Your task to perform on an android device: open app "Move to iOS" (install if not already installed) Image 0: 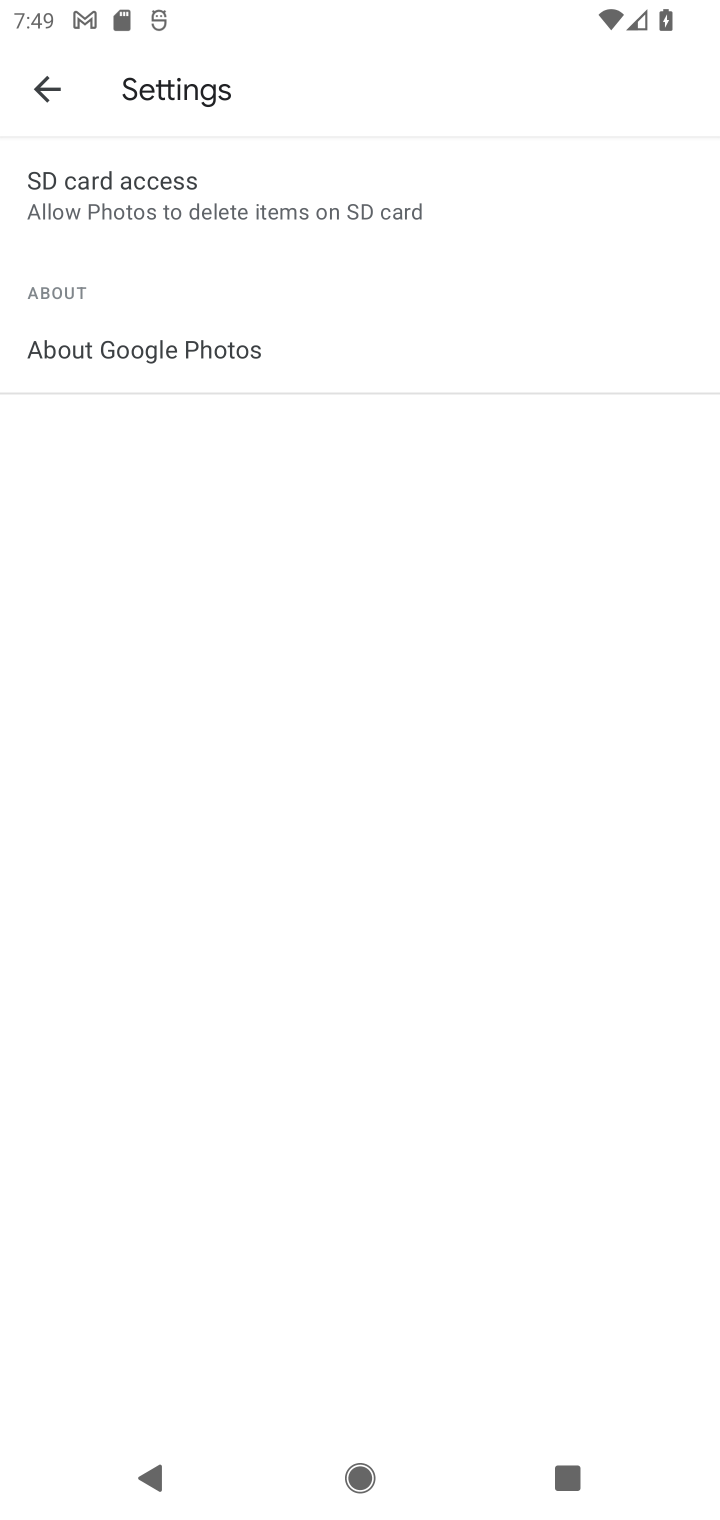
Step 0: press home button
Your task to perform on an android device: open app "Move to iOS" (install if not already installed) Image 1: 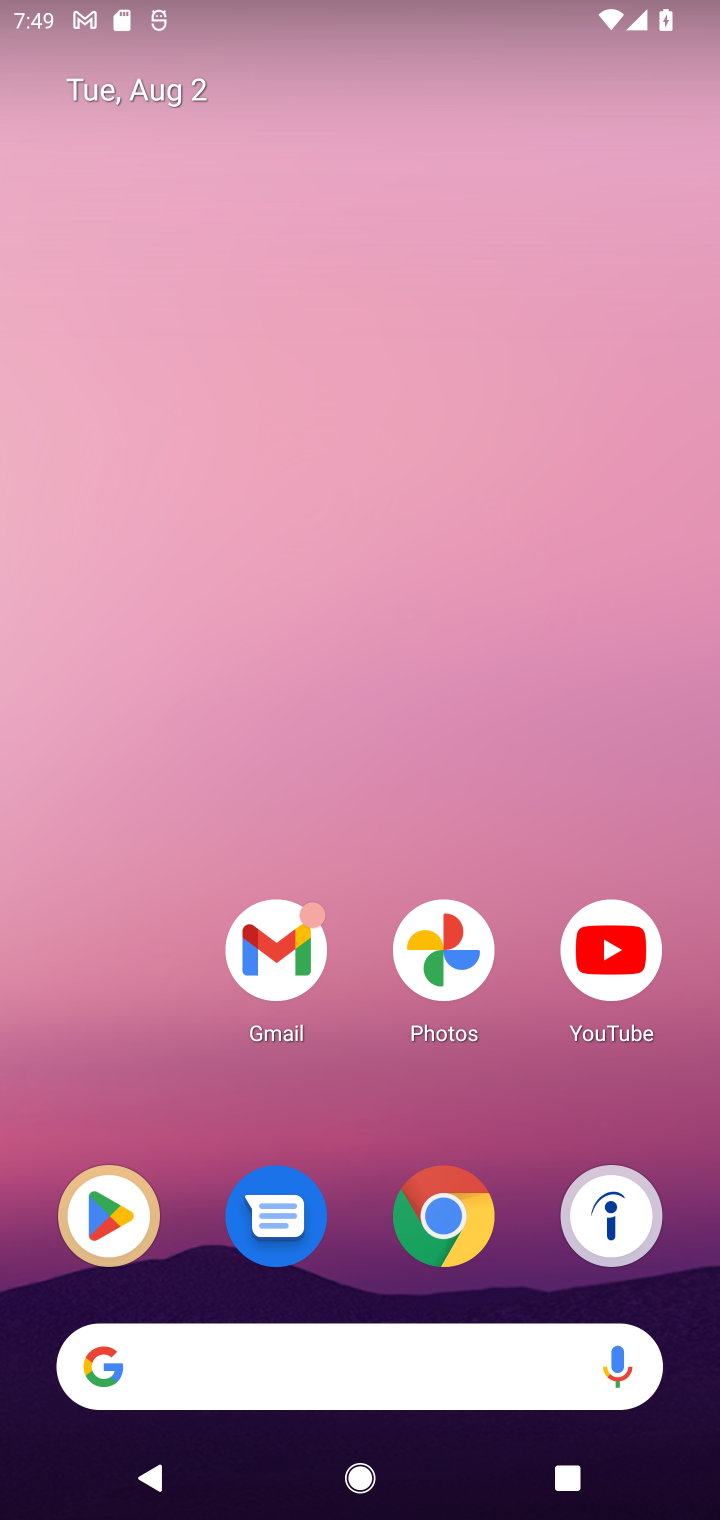
Step 1: click (117, 1205)
Your task to perform on an android device: open app "Move to iOS" (install if not already installed) Image 2: 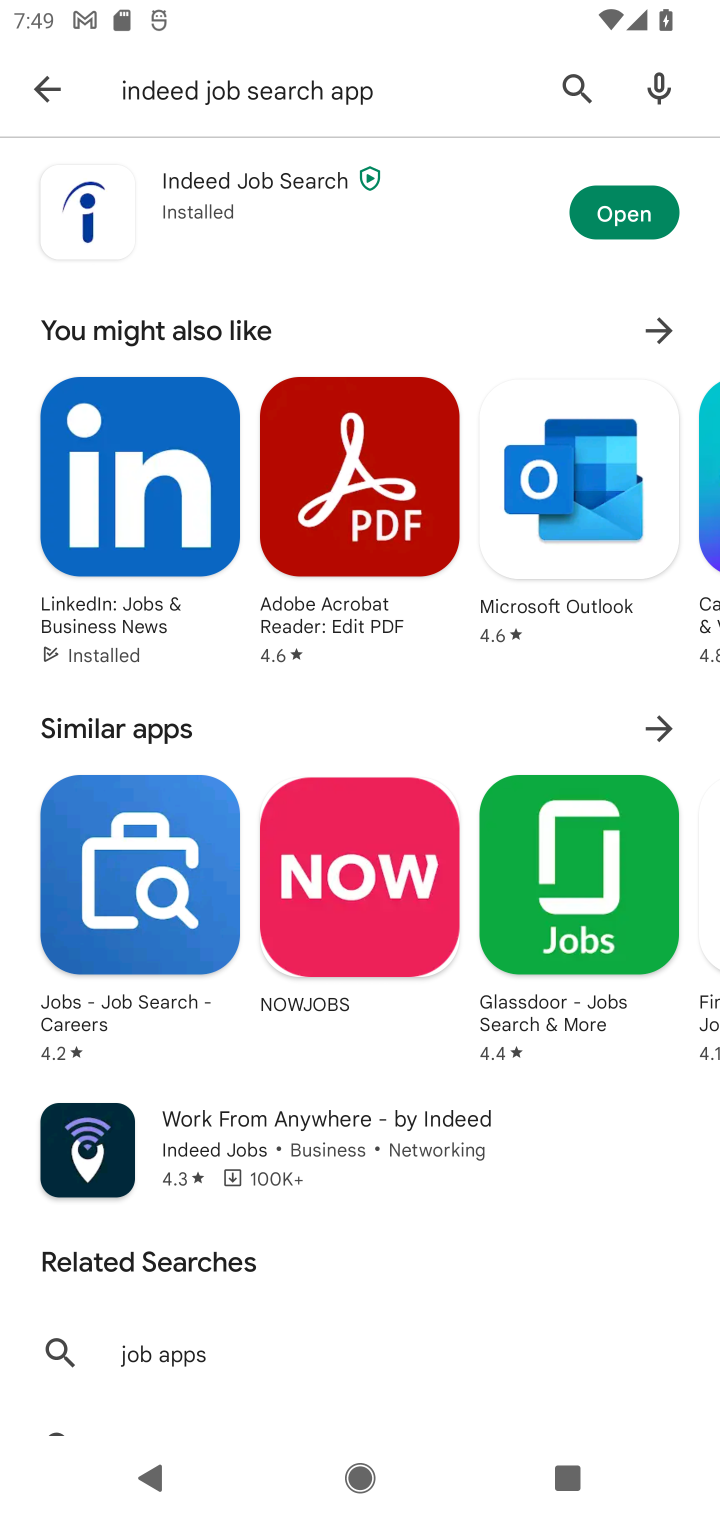
Step 2: click (566, 87)
Your task to perform on an android device: open app "Move to iOS" (install if not already installed) Image 3: 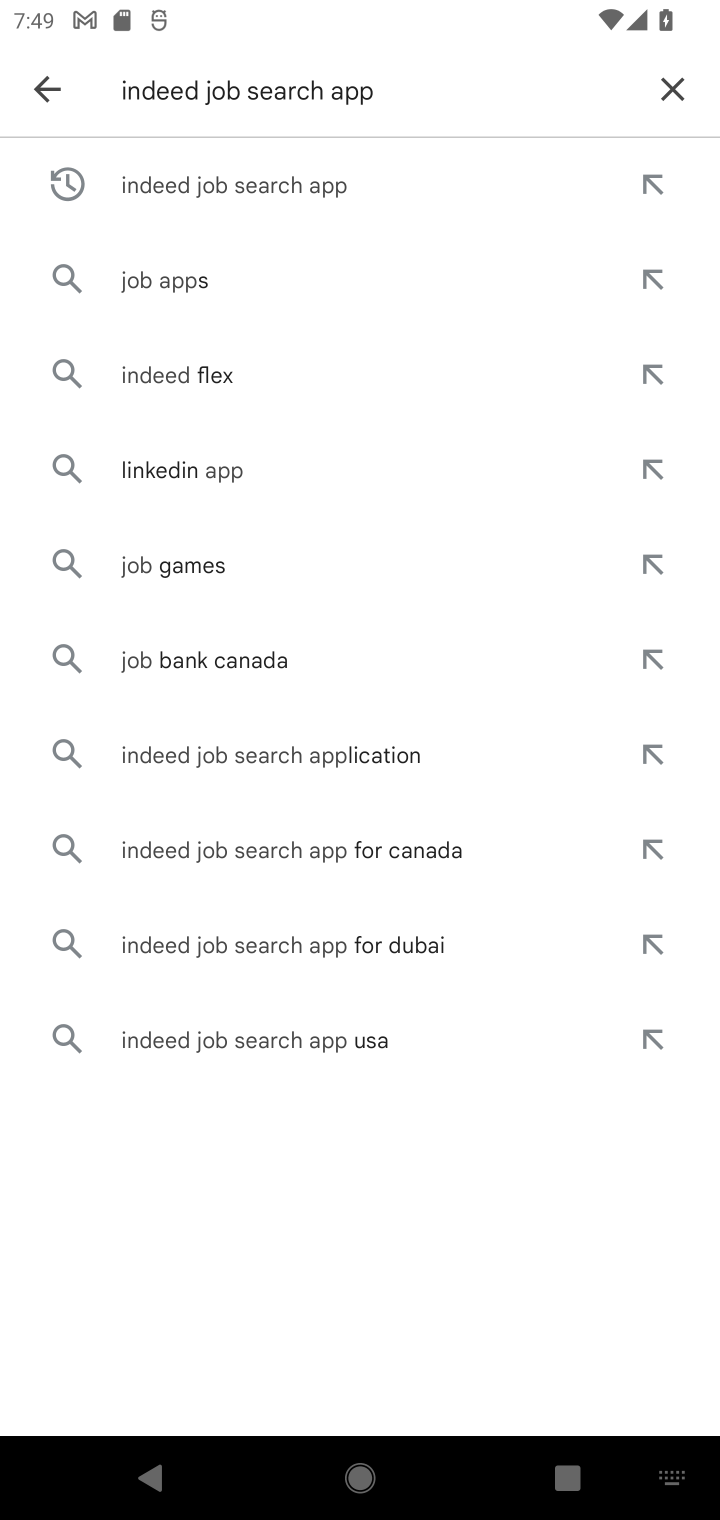
Step 3: click (656, 88)
Your task to perform on an android device: open app "Move to iOS" (install if not already installed) Image 4: 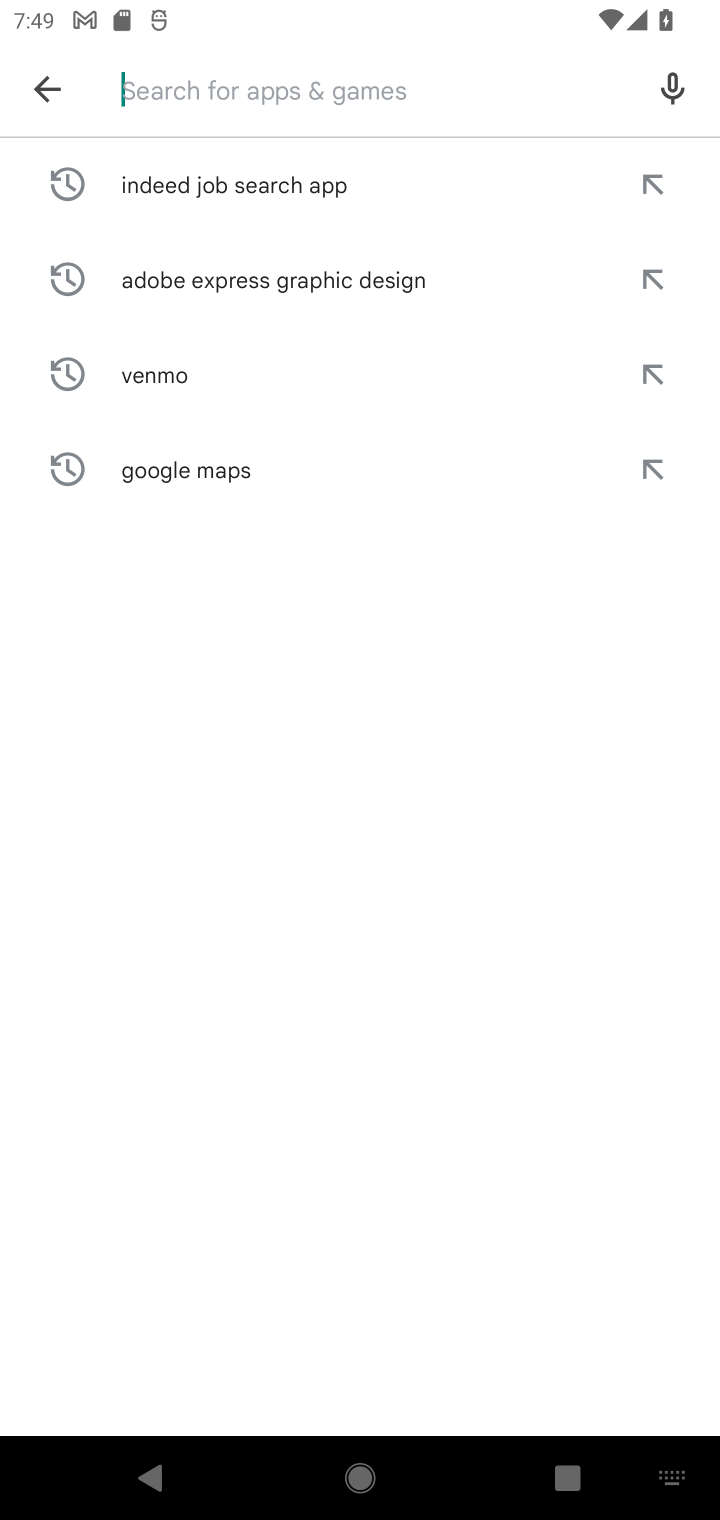
Step 4: type "Move to iOS"
Your task to perform on an android device: open app "Move to iOS" (install if not already installed) Image 5: 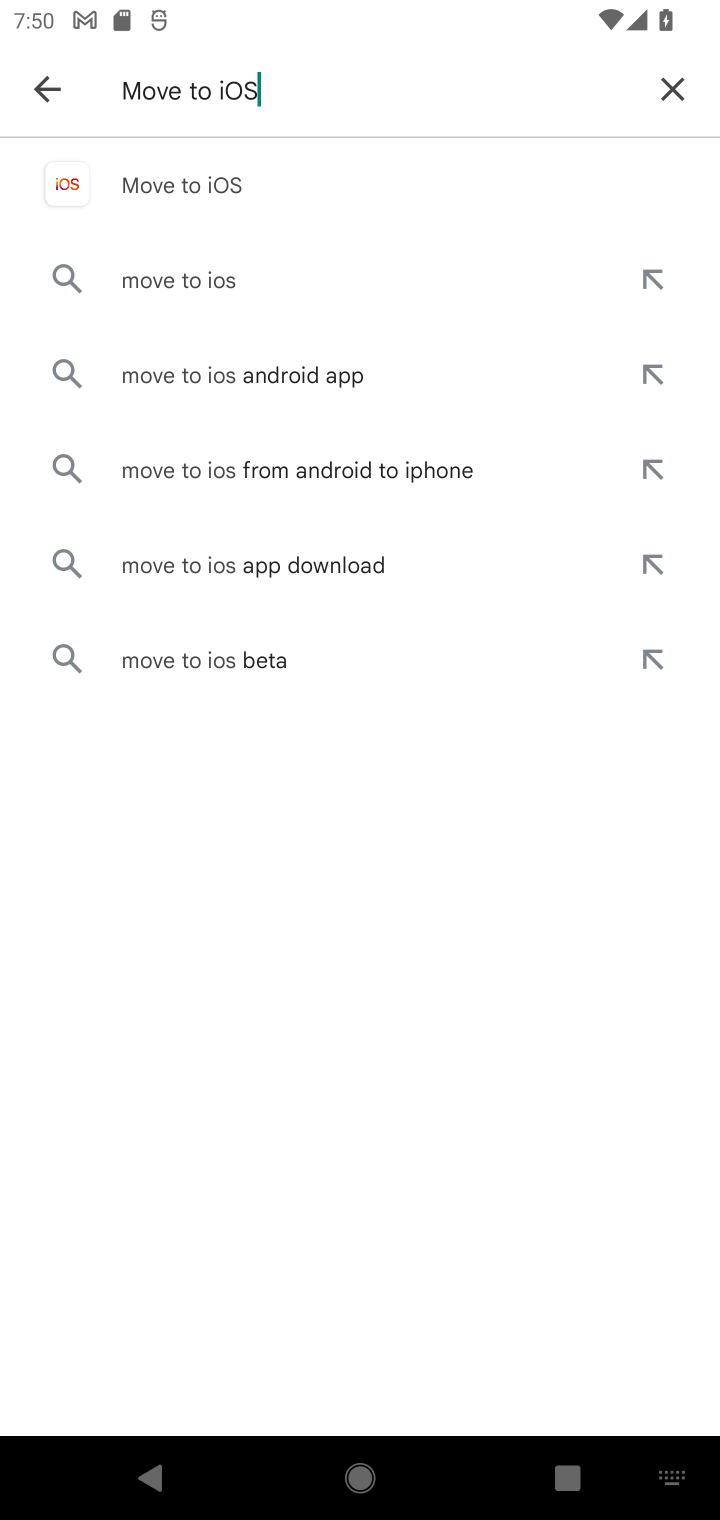
Step 5: click (173, 189)
Your task to perform on an android device: open app "Move to iOS" (install if not already installed) Image 6: 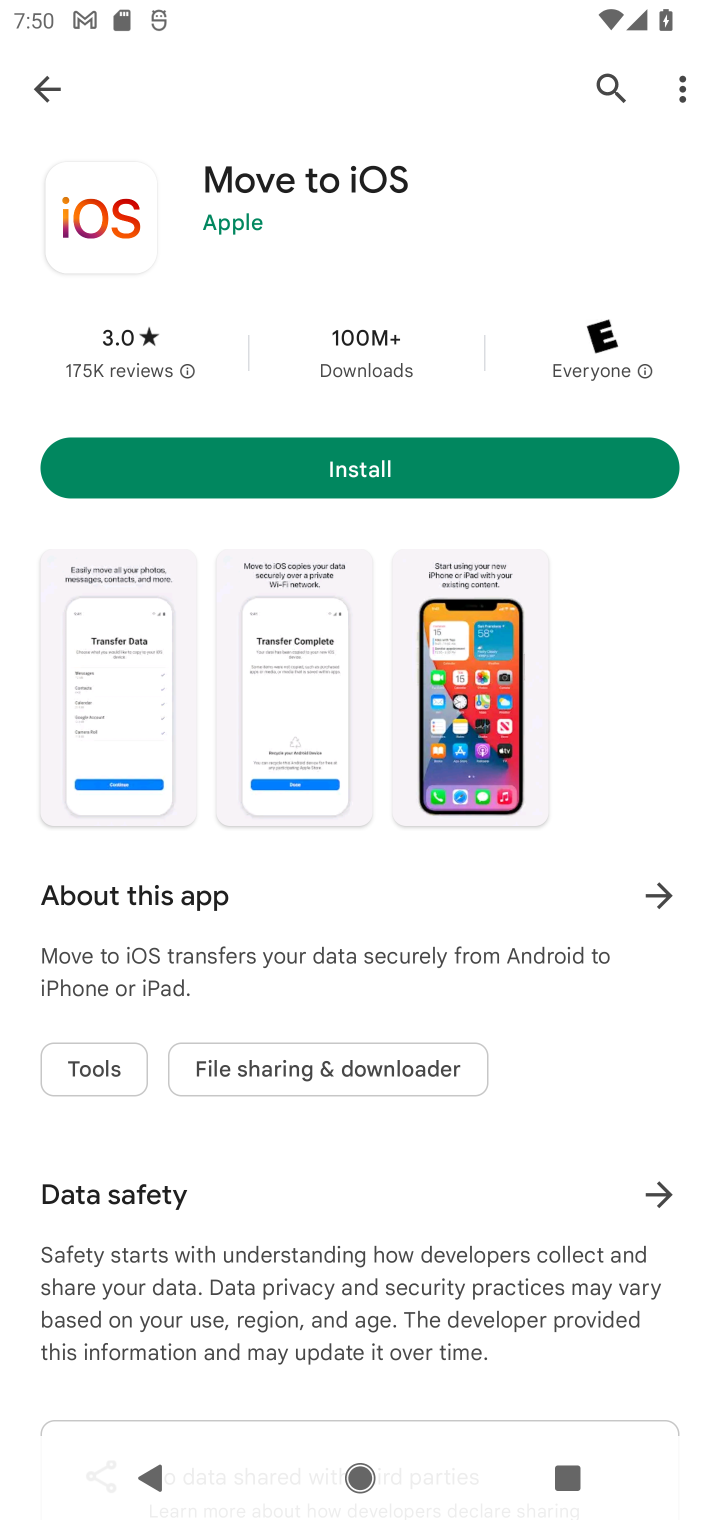
Step 6: click (345, 466)
Your task to perform on an android device: open app "Move to iOS" (install if not already installed) Image 7: 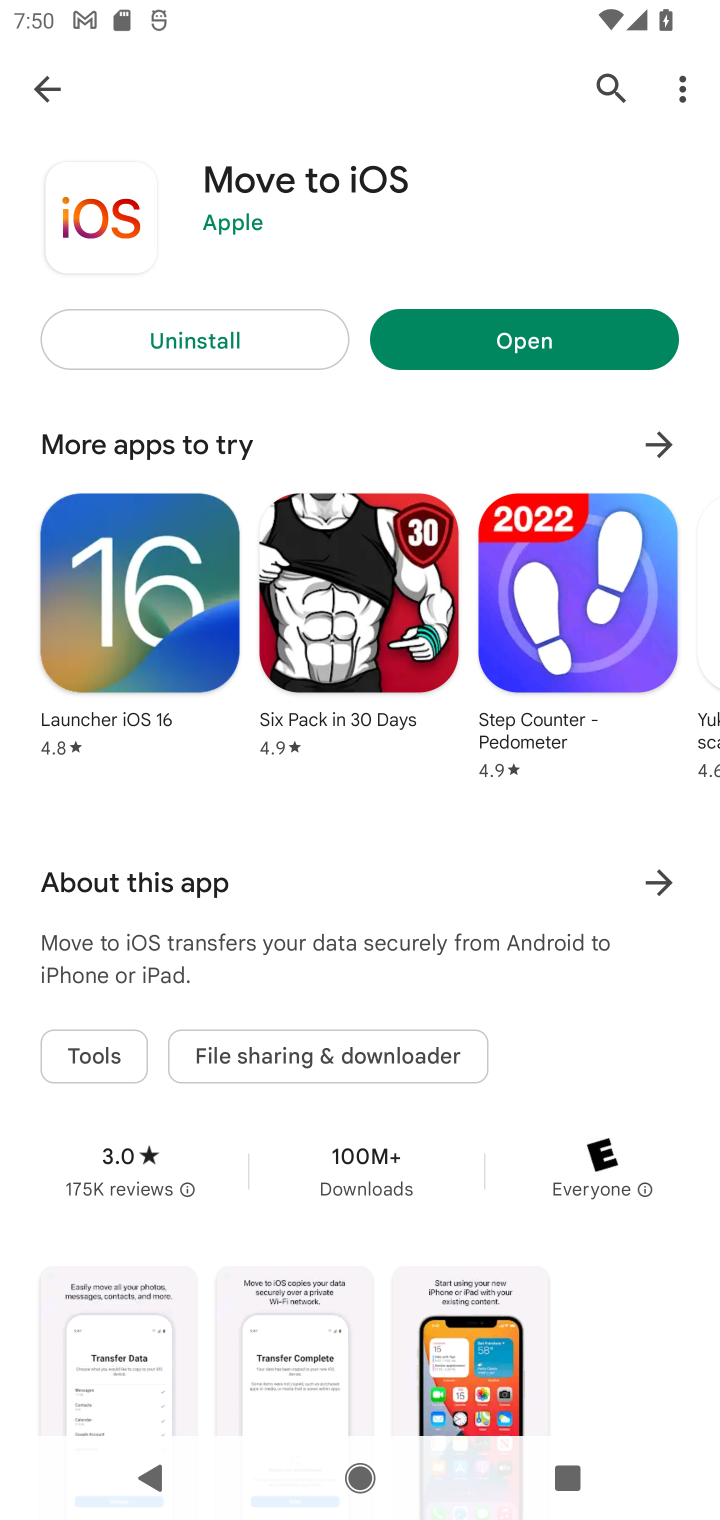
Step 7: click (576, 322)
Your task to perform on an android device: open app "Move to iOS" (install if not already installed) Image 8: 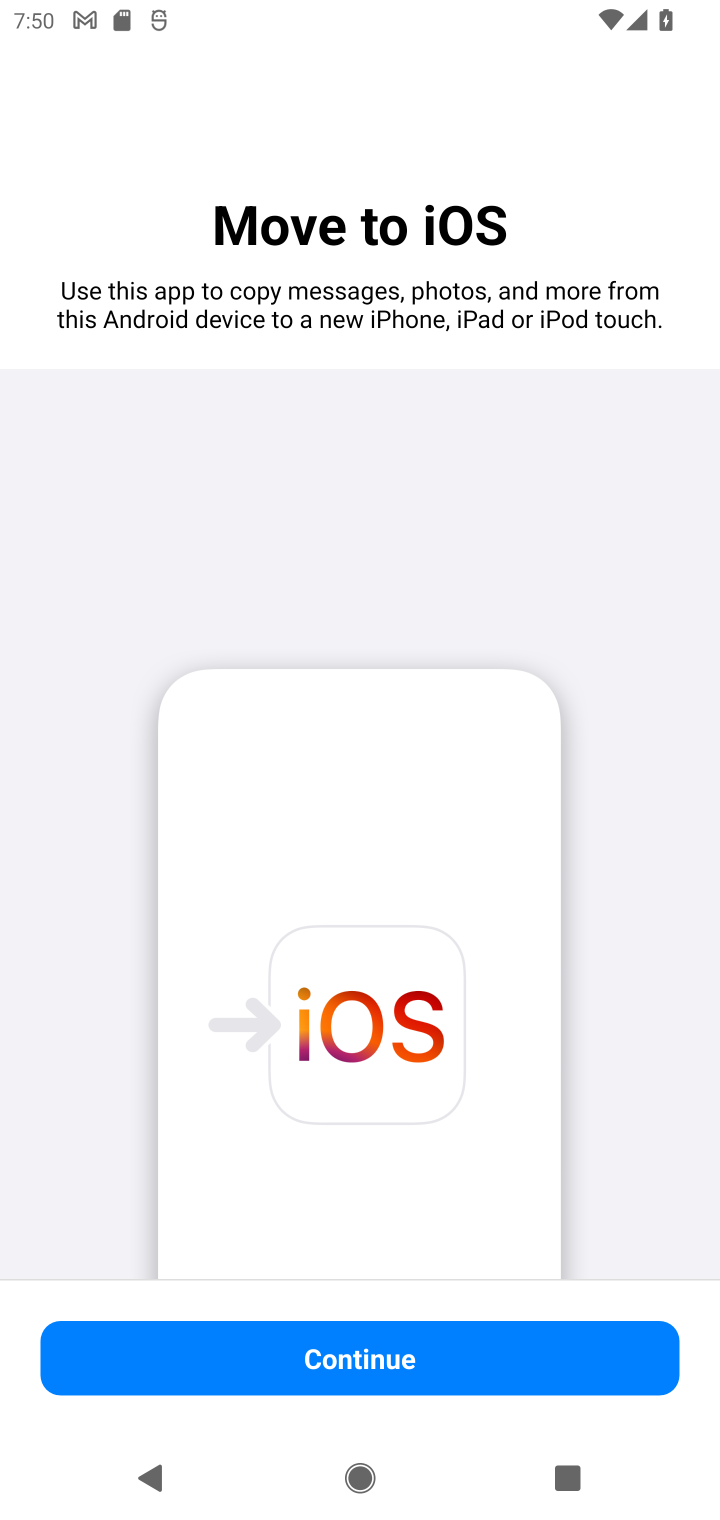
Step 8: task complete